Your task to perform on an android device: Go to privacy settings Image 0: 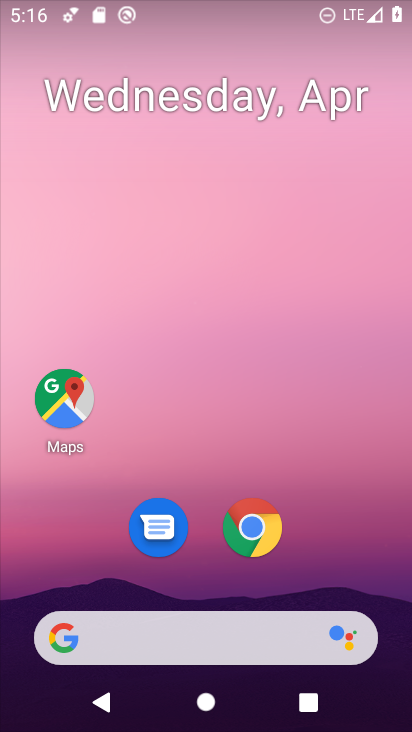
Step 0: drag from (369, 588) to (370, 30)
Your task to perform on an android device: Go to privacy settings Image 1: 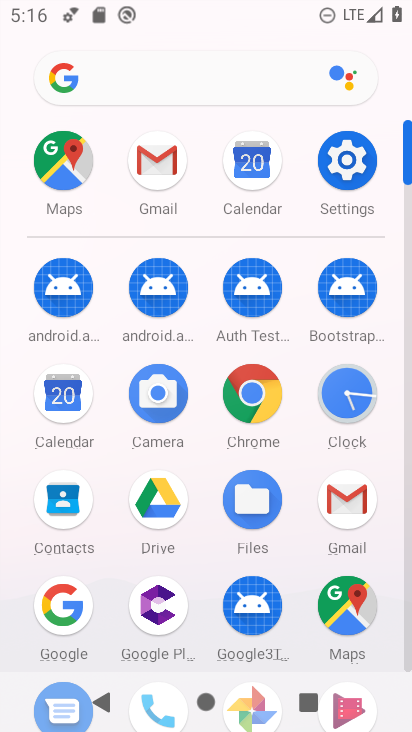
Step 1: click (343, 166)
Your task to perform on an android device: Go to privacy settings Image 2: 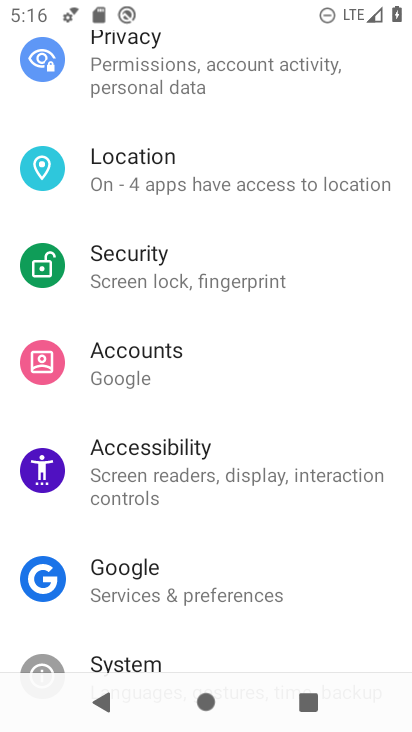
Step 2: click (133, 75)
Your task to perform on an android device: Go to privacy settings Image 3: 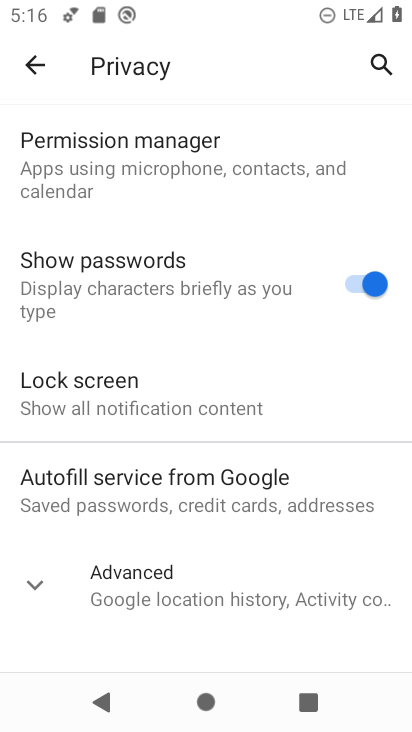
Step 3: click (42, 592)
Your task to perform on an android device: Go to privacy settings Image 4: 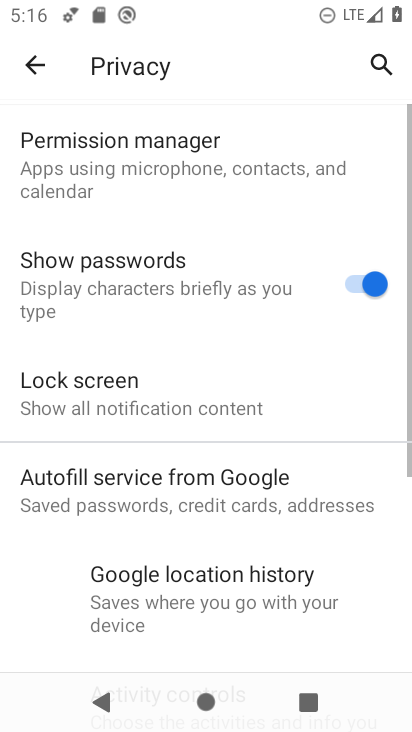
Step 4: task complete